Your task to perform on an android device: add a contact Image 0: 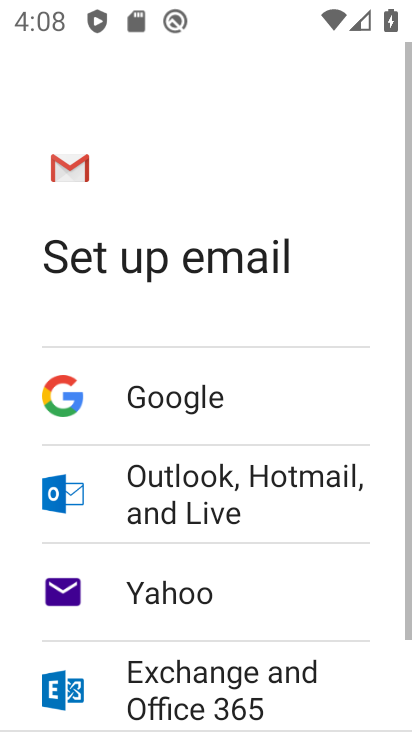
Step 0: press home button
Your task to perform on an android device: add a contact Image 1: 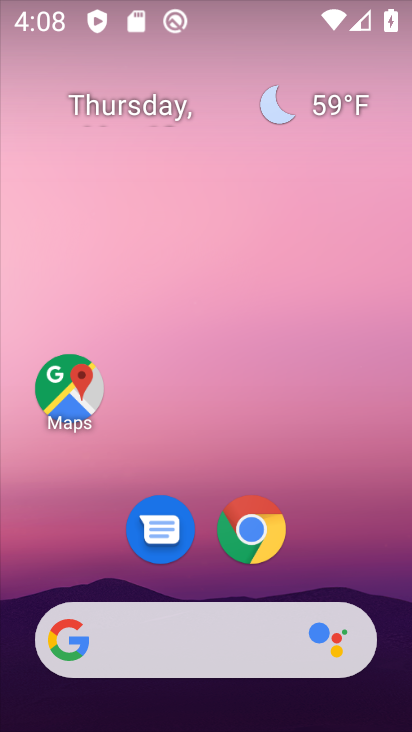
Step 1: drag from (210, 576) to (203, 54)
Your task to perform on an android device: add a contact Image 2: 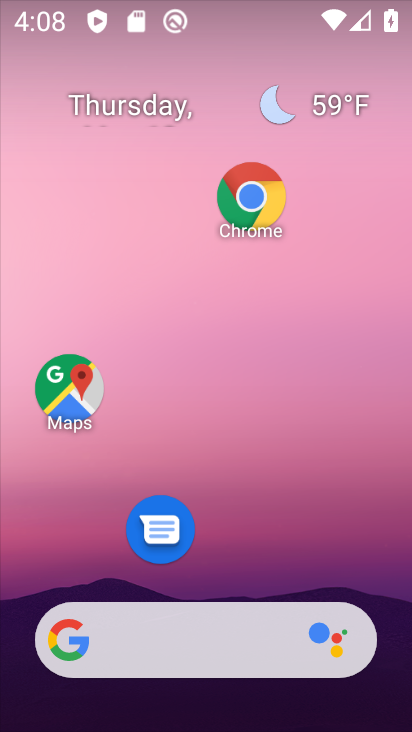
Step 2: drag from (317, 568) to (303, 82)
Your task to perform on an android device: add a contact Image 3: 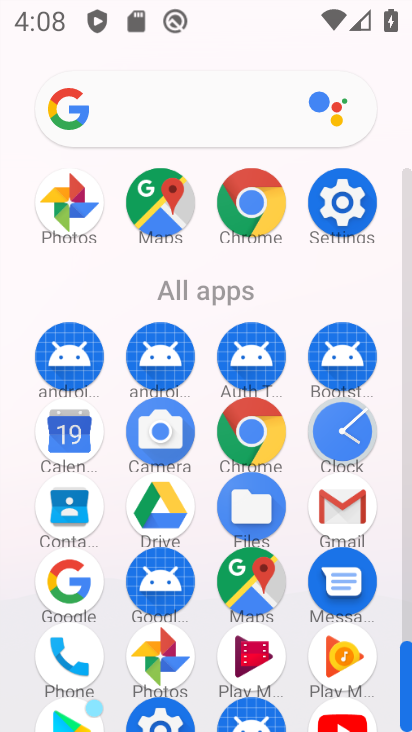
Step 3: click (64, 505)
Your task to perform on an android device: add a contact Image 4: 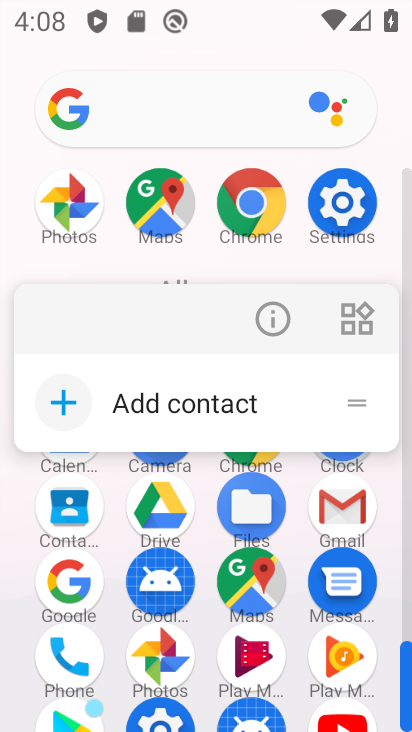
Step 4: click (67, 499)
Your task to perform on an android device: add a contact Image 5: 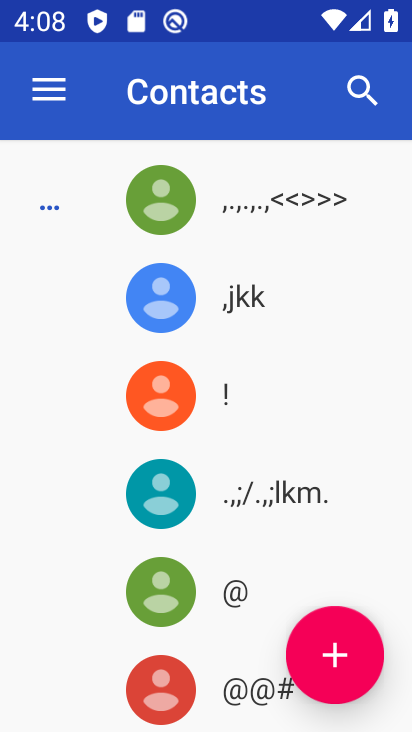
Step 5: click (336, 650)
Your task to perform on an android device: add a contact Image 6: 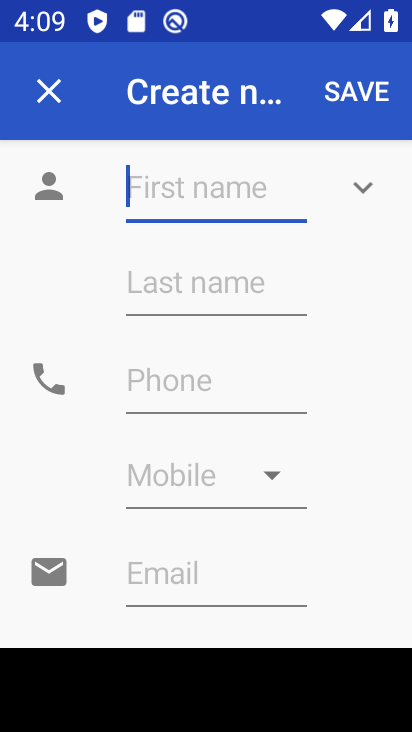
Step 6: type "dfvdgb"
Your task to perform on an android device: add a contact Image 7: 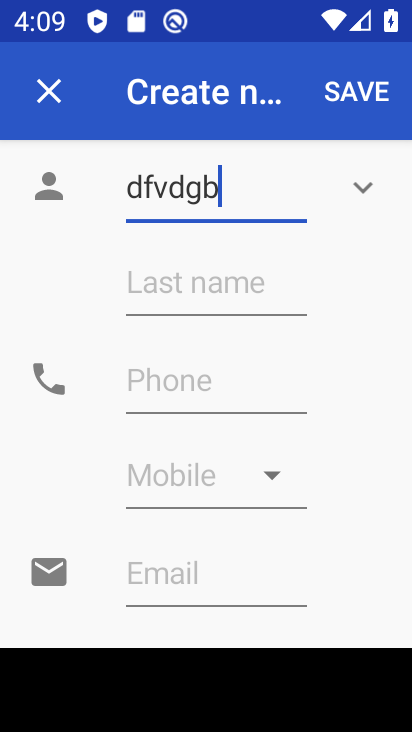
Step 7: type ""
Your task to perform on an android device: add a contact Image 8: 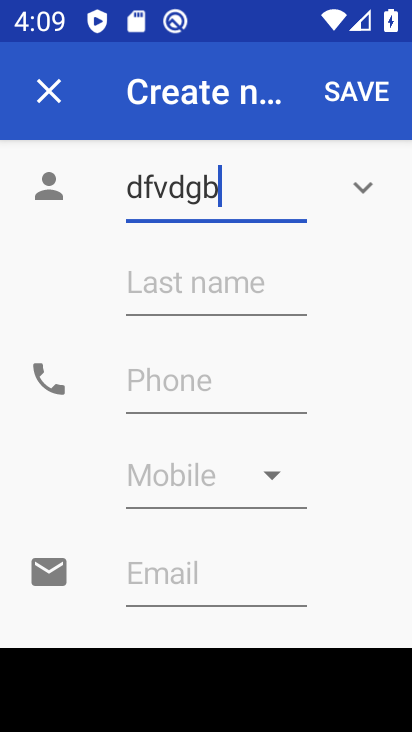
Step 8: click (350, 98)
Your task to perform on an android device: add a contact Image 9: 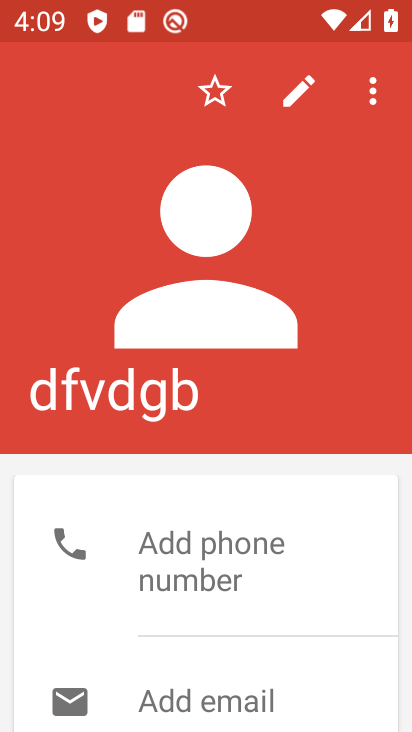
Step 9: task complete